Your task to perform on an android device: open app "Grab" (install if not already installed) Image 0: 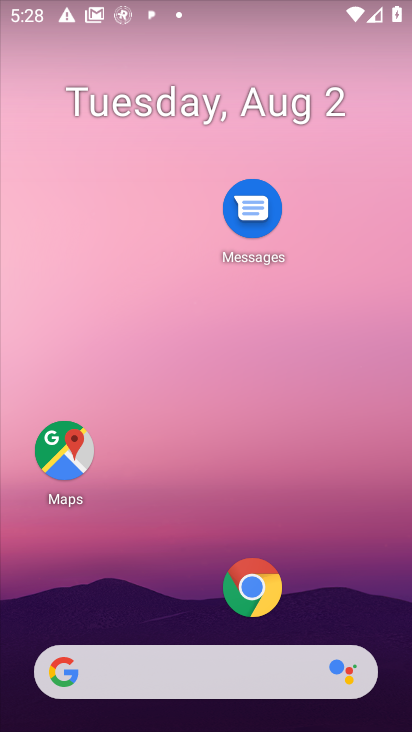
Step 0: drag from (180, 585) to (181, 198)
Your task to perform on an android device: open app "Grab" (install if not already installed) Image 1: 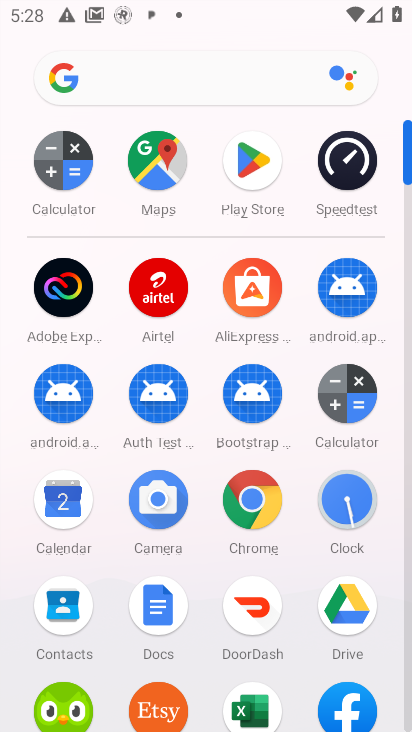
Step 1: click (257, 156)
Your task to perform on an android device: open app "Grab" (install if not already installed) Image 2: 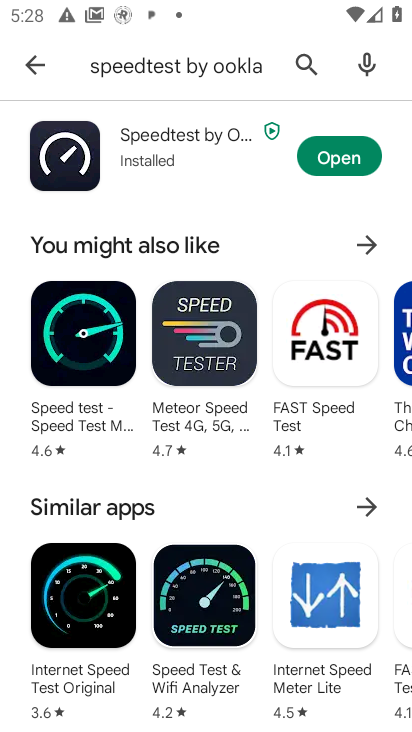
Step 2: click (315, 60)
Your task to perform on an android device: open app "Grab" (install if not already installed) Image 3: 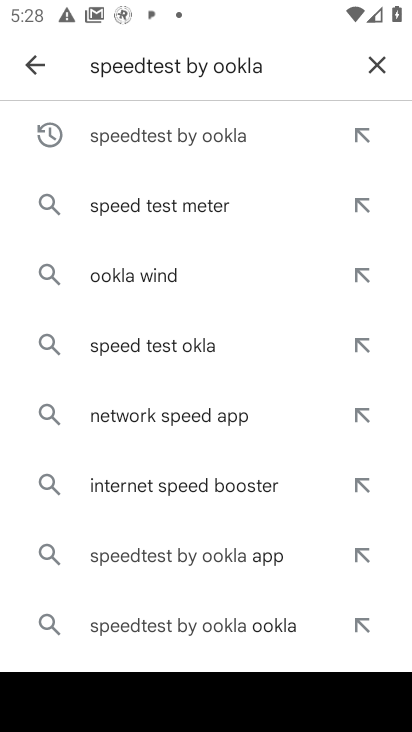
Step 3: click (378, 70)
Your task to perform on an android device: open app "Grab" (install if not already installed) Image 4: 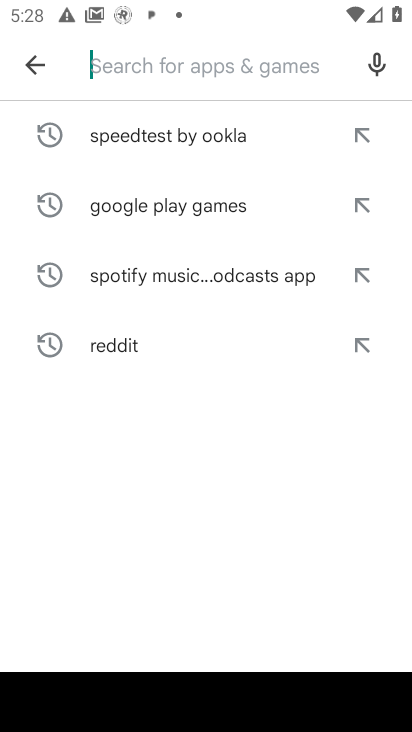
Step 4: type "Grab"
Your task to perform on an android device: open app "Grab" (install if not already installed) Image 5: 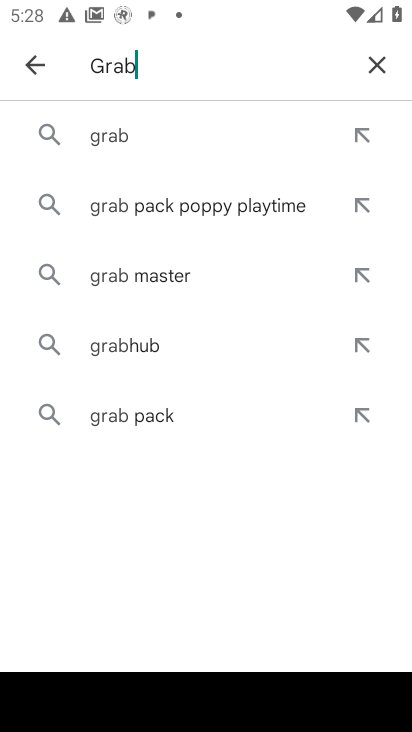
Step 5: click (162, 138)
Your task to perform on an android device: open app "Grab" (install if not already installed) Image 6: 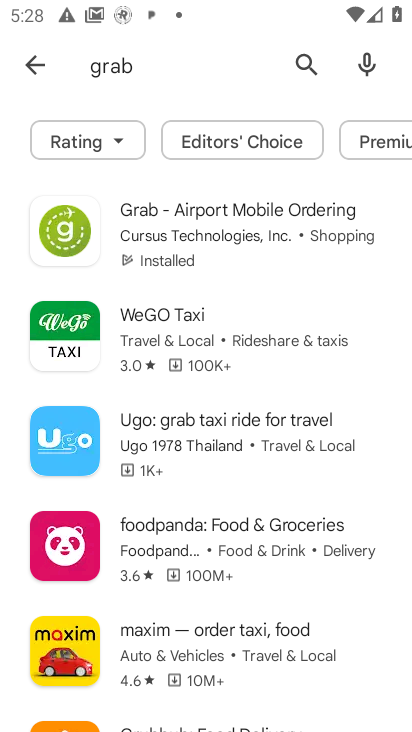
Step 6: click (230, 213)
Your task to perform on an android device: open app "Grab" (install if not already installed) Image 7: 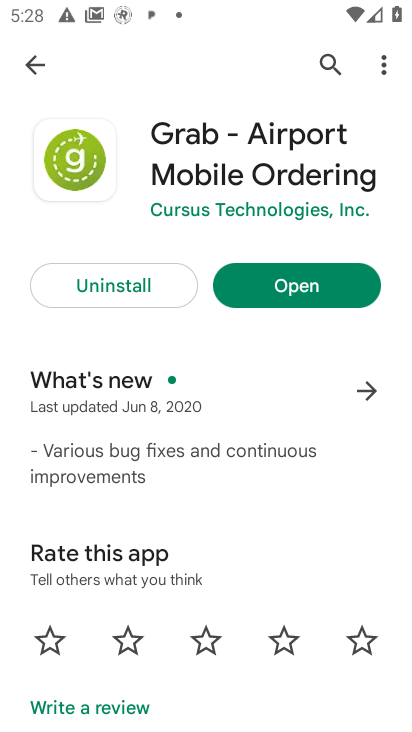
Step 7: click (324, 282)
Your task to perform on an android device: open app "Grab" (install if not already installed) Image 8: 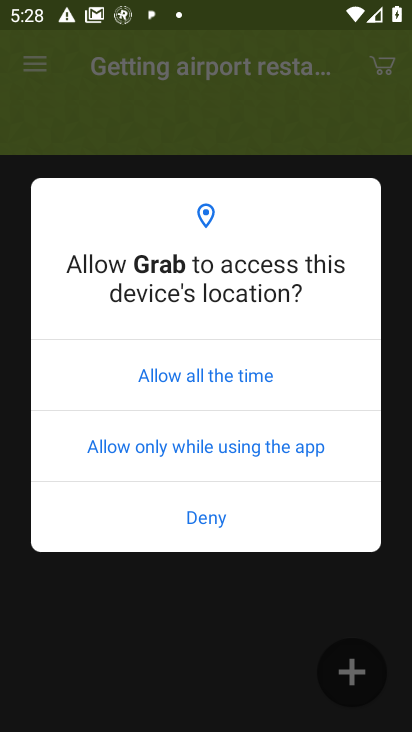
Step 8: task complete